Your task to perform on an android device: Show the shopping cart on newegg.com. Search for "razer thresher" on newegg.com, select the first entry, and add it to the cart. Image 0: 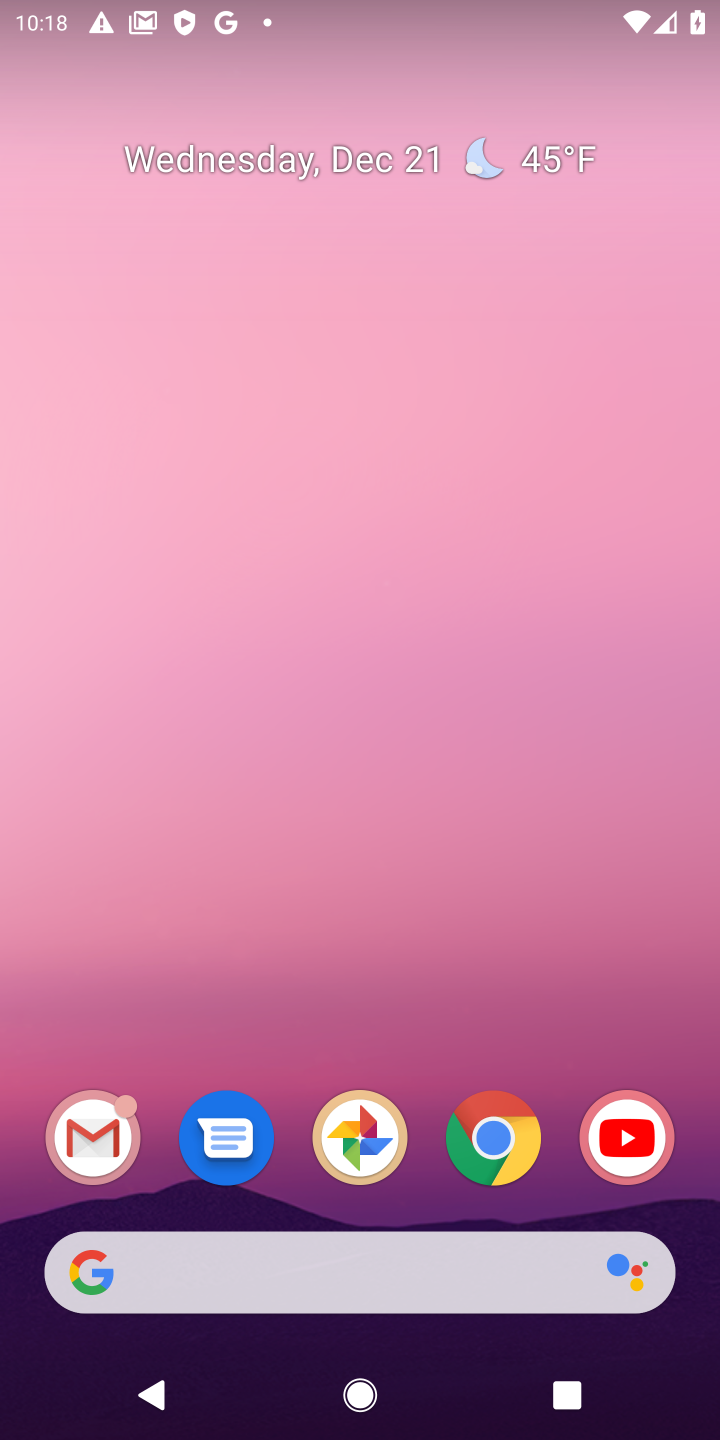
Step 0: click (485, 1154)
Your task to perform on an android device: Show the shopping cart on newegg.com. Search for "razer thresher" on newegg.com, select the first entry, and add it to the cart. Image 1: 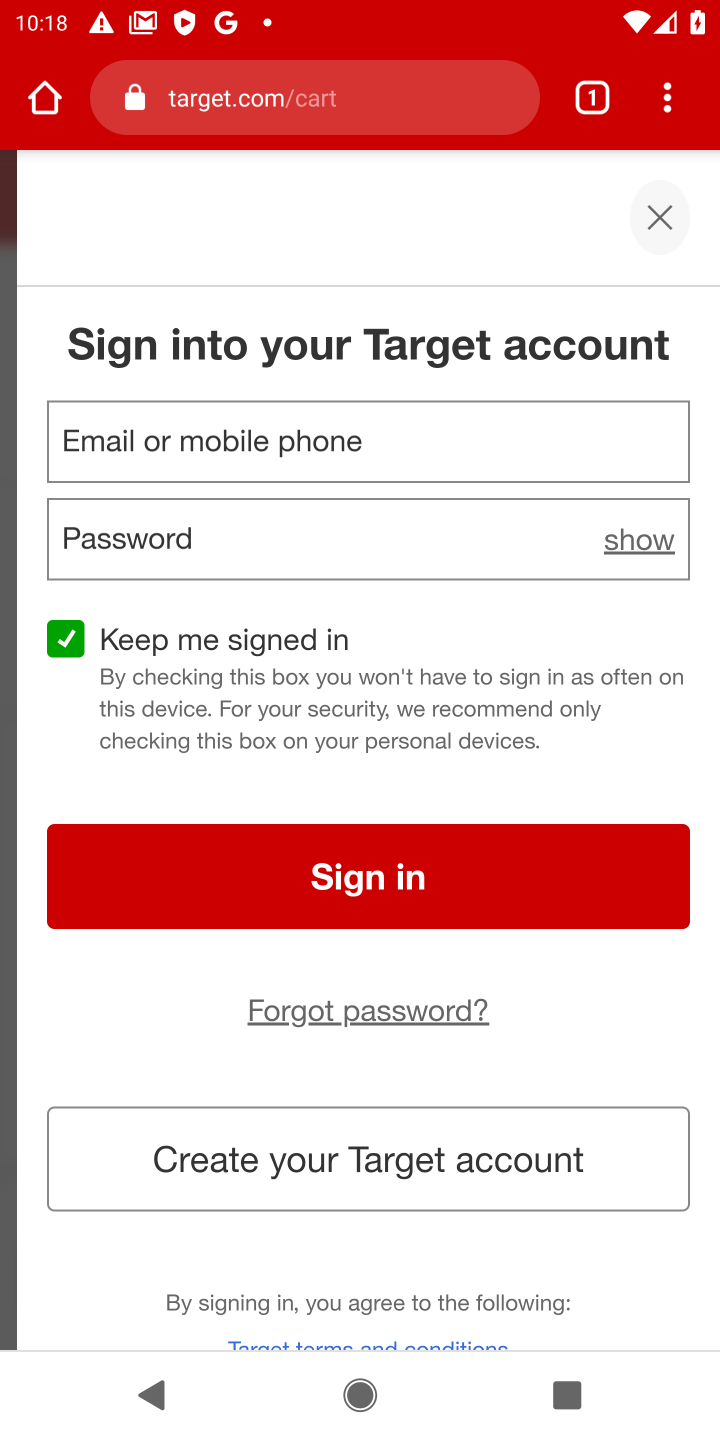
Step 1: click (241, 96)
Your task to perform on an android device: Show the shopping cart on newegg.com. Search for "razer thresher" on newegg.com, select the first entry, and add it to the cart. Image 2: 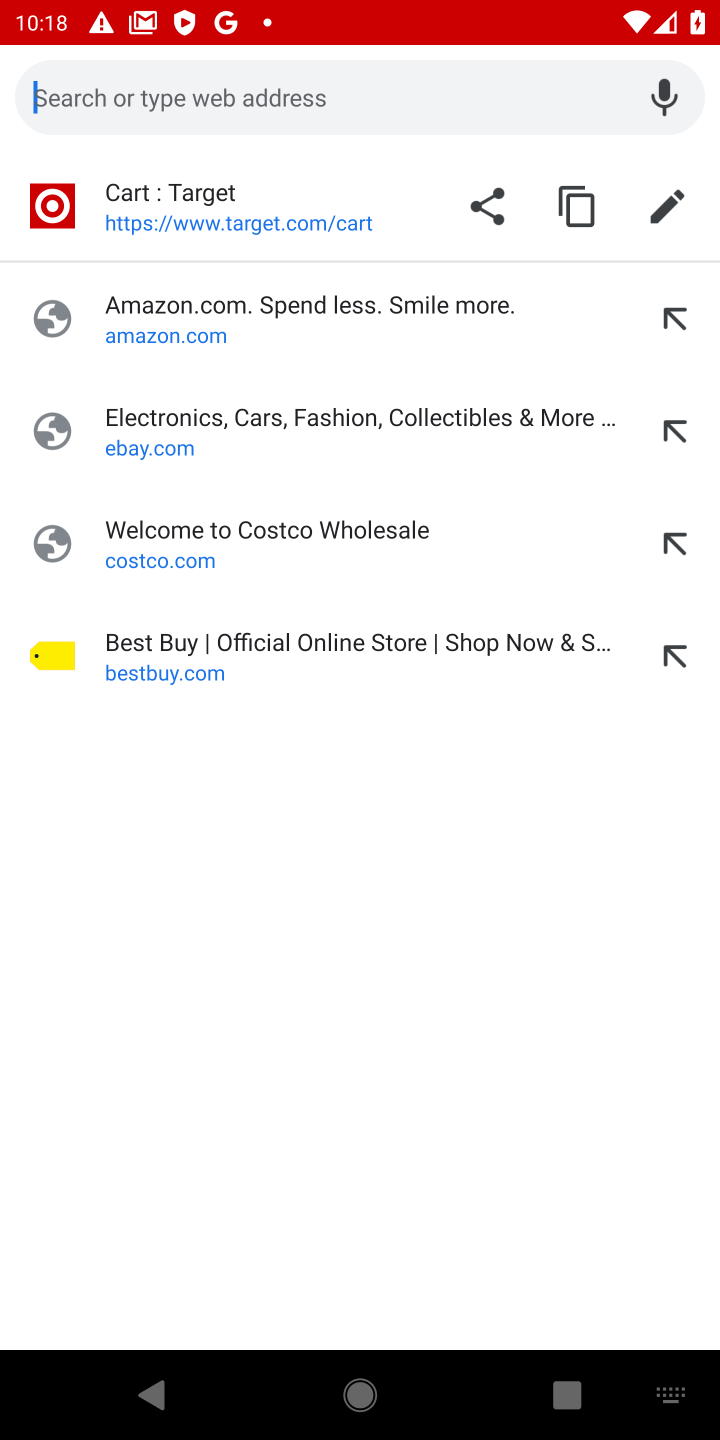
Step 2: type "newegg.com"
Your task to perform on an android device: Show the shopping cart on newegg.com. Search for "razer thresher" on newegg.com, select the first entry, and add it to the cart. Image 3: 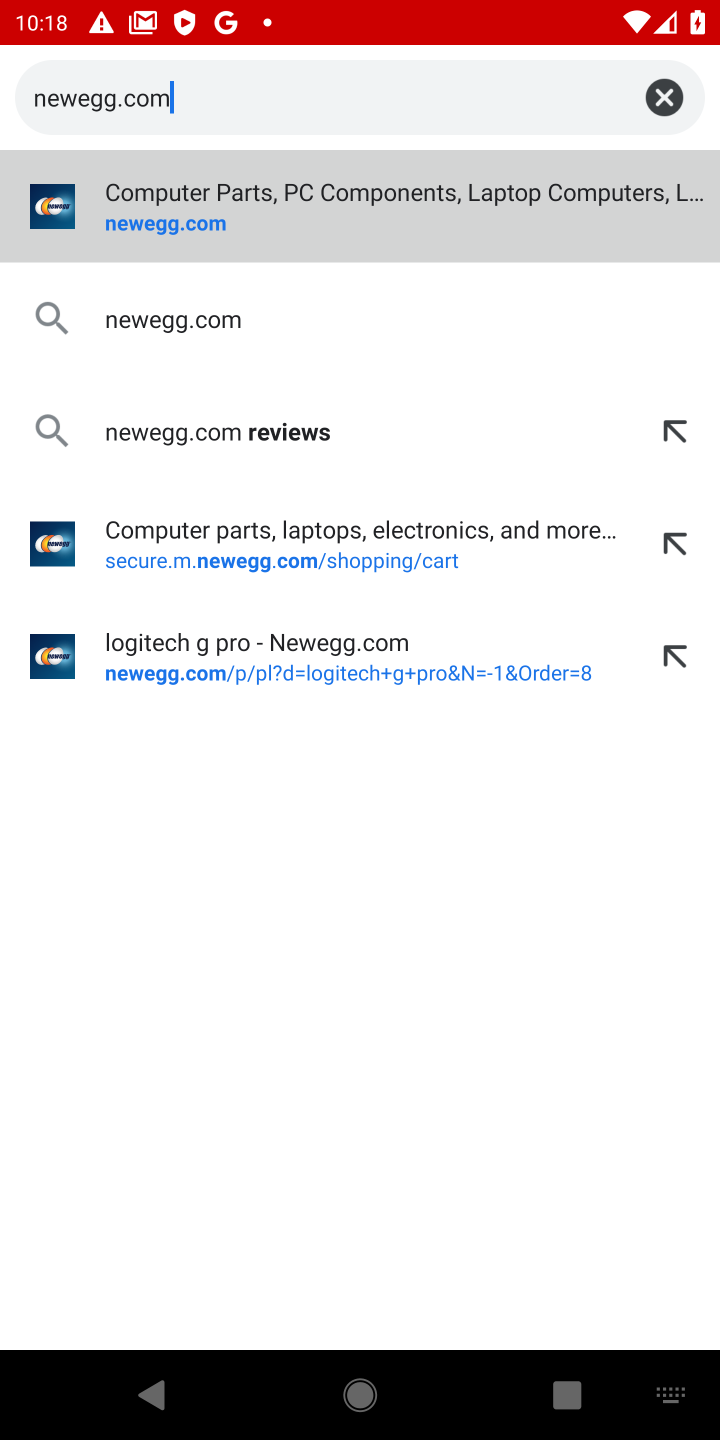
Step 3: click (142, 227)
Your task to perform on an android device: Show the shopping cart on newegg.com. Search for "razer thresher" on newegg.com, select the first entry, and add it to the cart. Image 4: 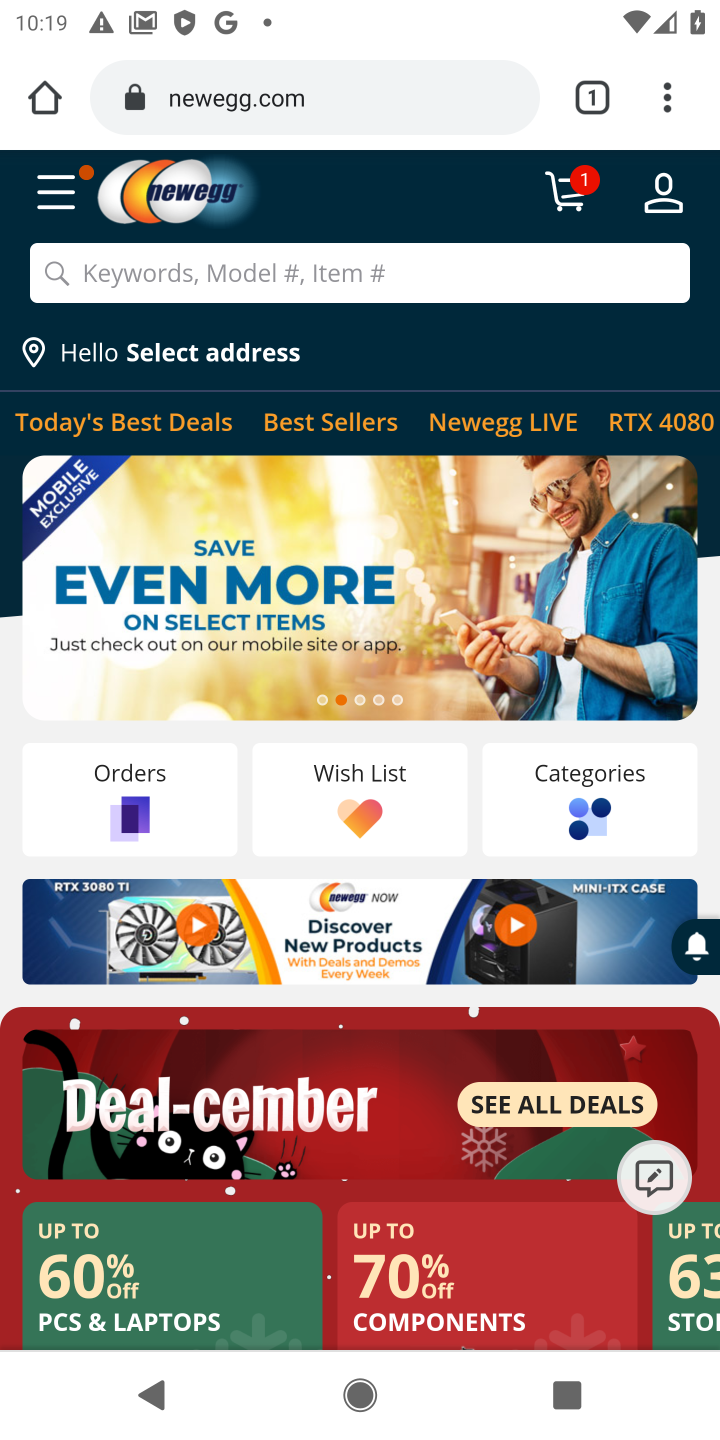
Step 4: click (565, 199)
Your task to perform on an android device: Show the shopping cart on newegg.com. Search for "razer thresher" on newegg.com, select the first entry, and add it to the cart. Image 5: 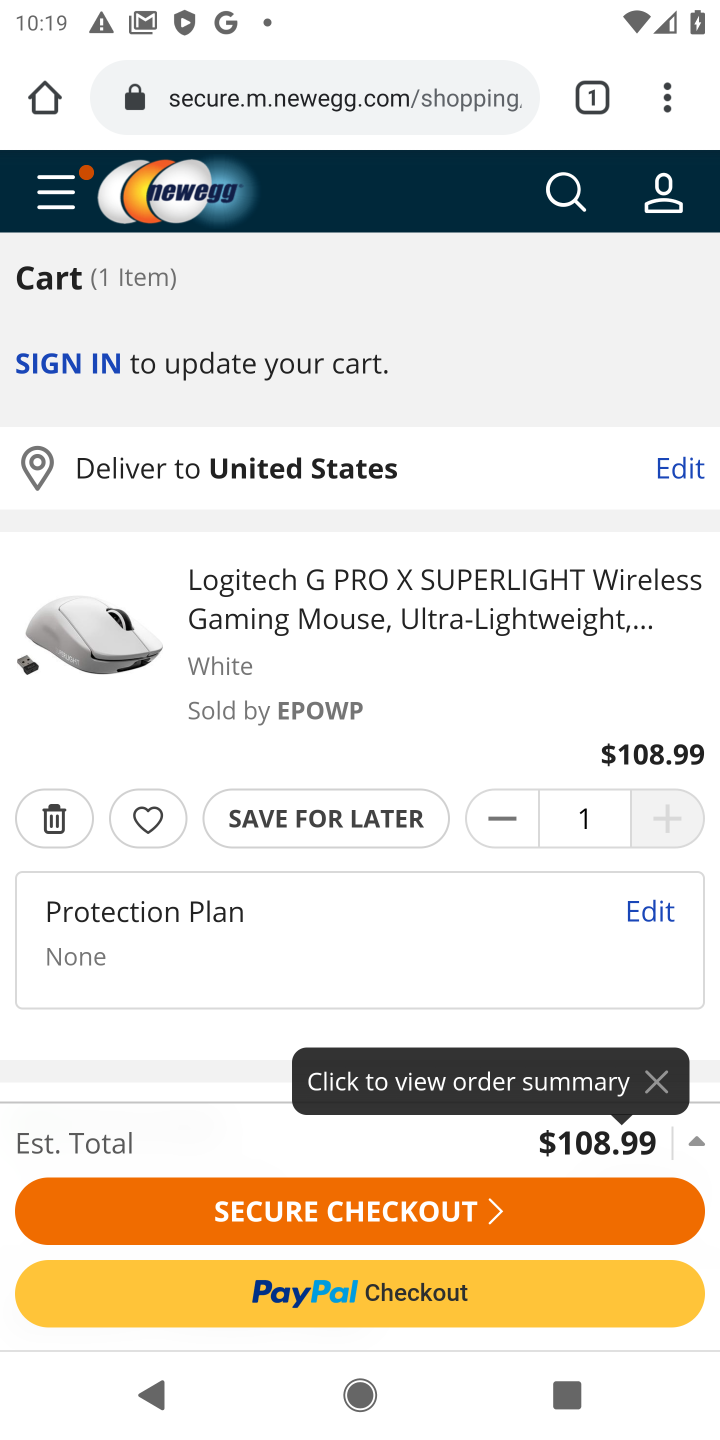
Step 5: click (563, 194)
Your task to perform on an android device: Show the shopping cart on newegg.com. Search for "razer thresher" on newegg.com, select the first entry, and add it to the cart. Image 6: 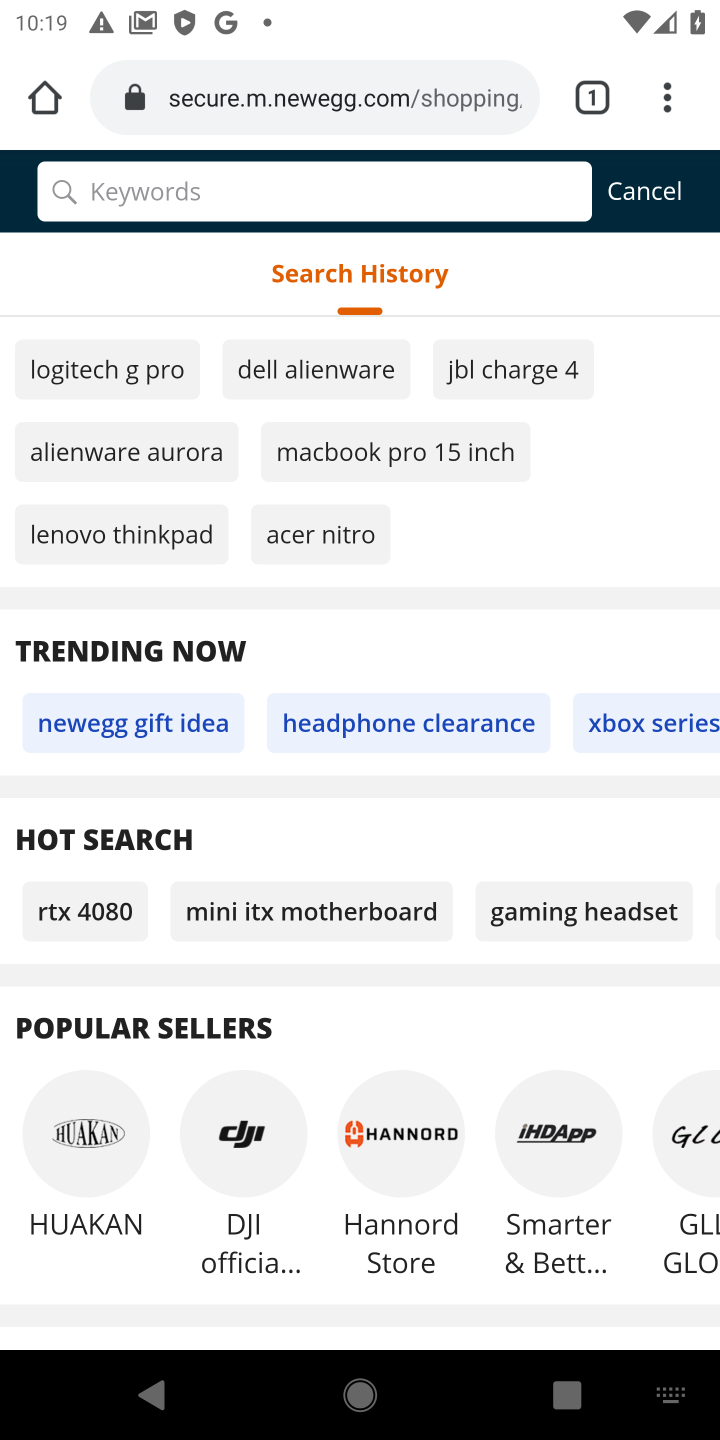
Step 6: type "razer thresher"
Your task to perform on an android device: Show the shopping cart on newegg.com. Search for "razer thresher" on newegg.com, select the first entry, and add it to the cart. Image 7: 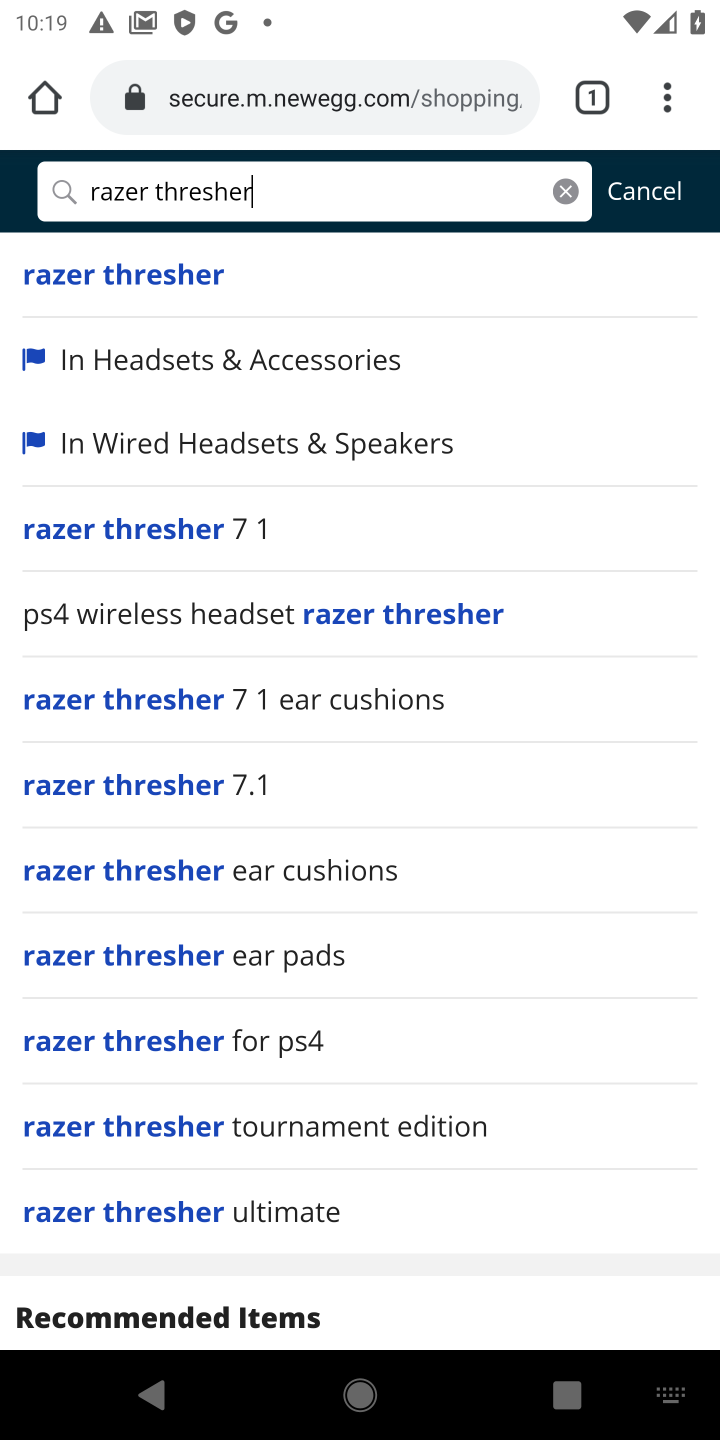
Step 7: click (157, 287)
Your task to perform on an android device: Show the shopping cart on newegg.com. Search for "razer thresher" on newegg.com, select the first entry, and add it to the cart. Image 8: 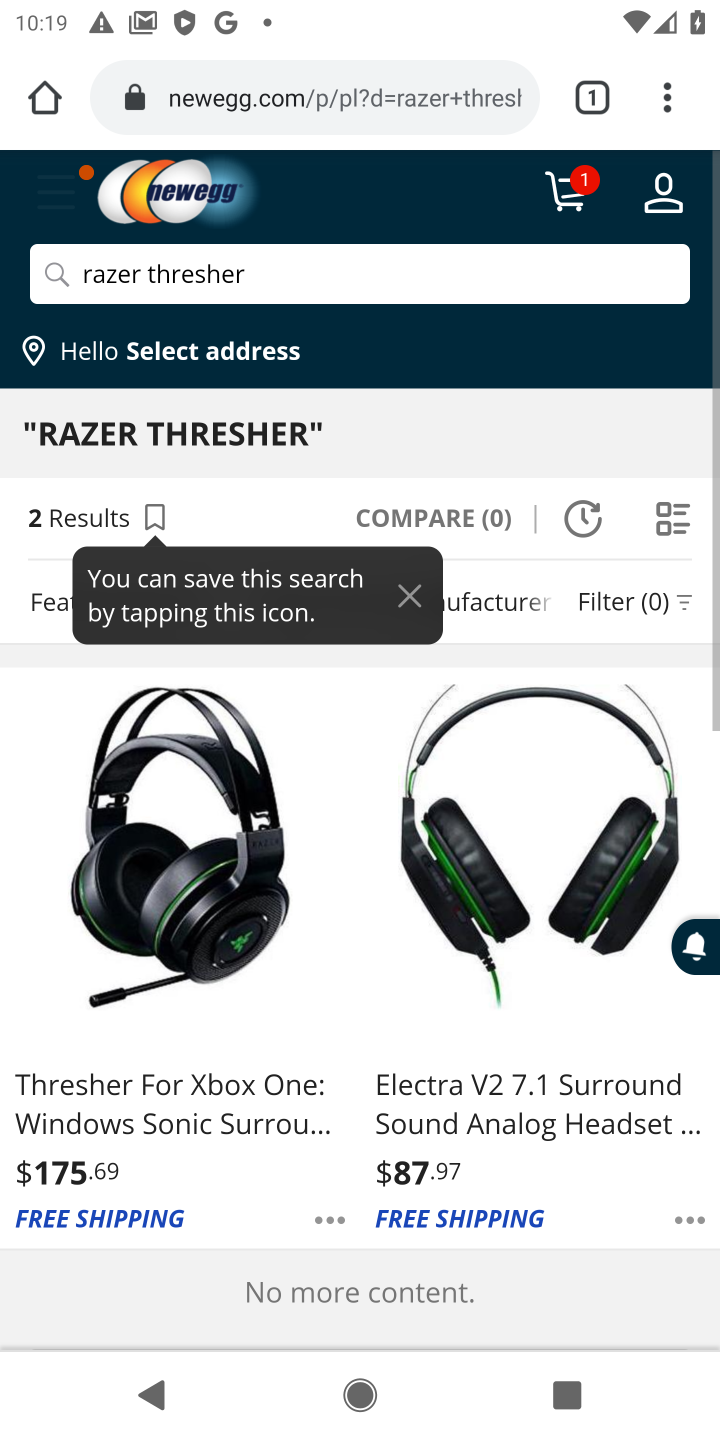
Step 8: drag from (317, 1125) to (344, 669)
Your task to perform on an android device: Show the shopping cart on newegg.com. Search for "razer thresher" on newegg.com, select the first entry, and add it to the cart. Image 9: 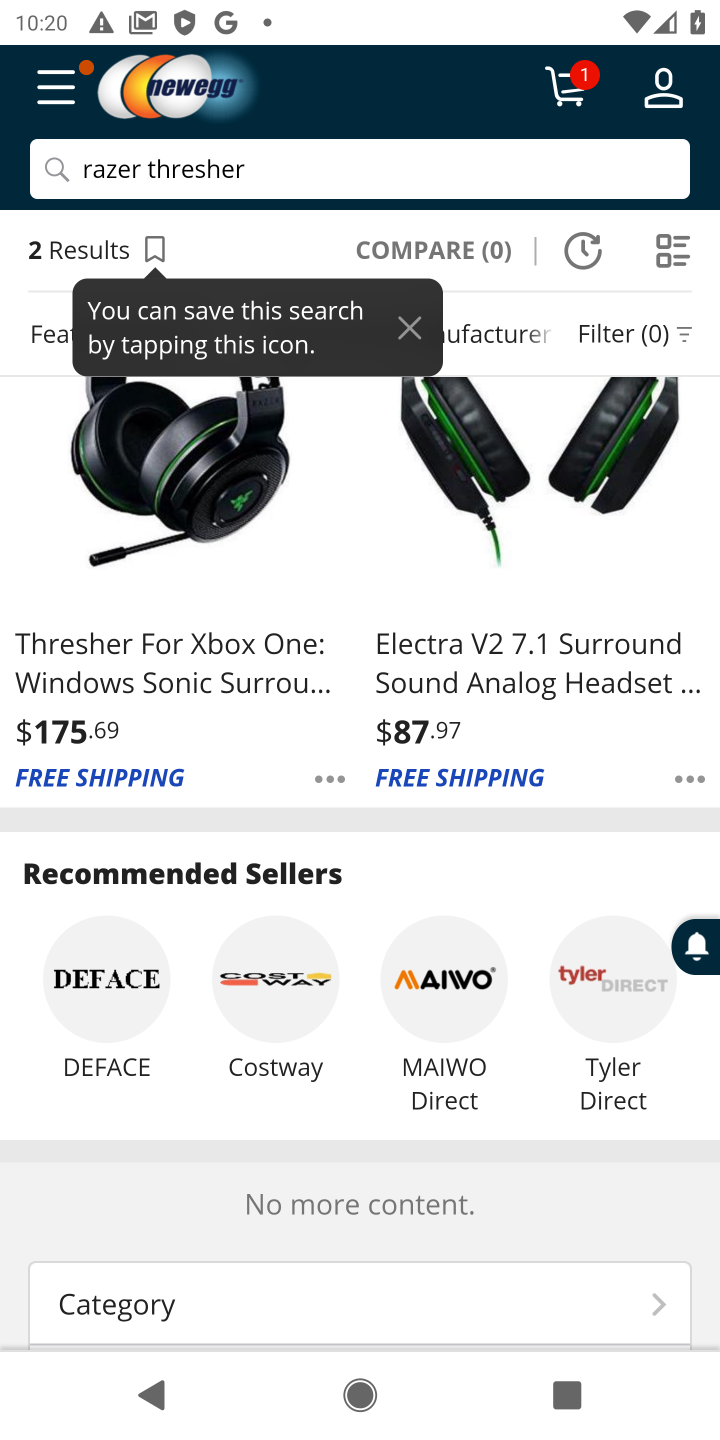
Step 9: click (100, 677)
Your task to perform on an android device: Show the shopping cart on newegg.com. Search for "razer thresher" on newegg.com, select the first entry, and add it to the cart. Image 10: 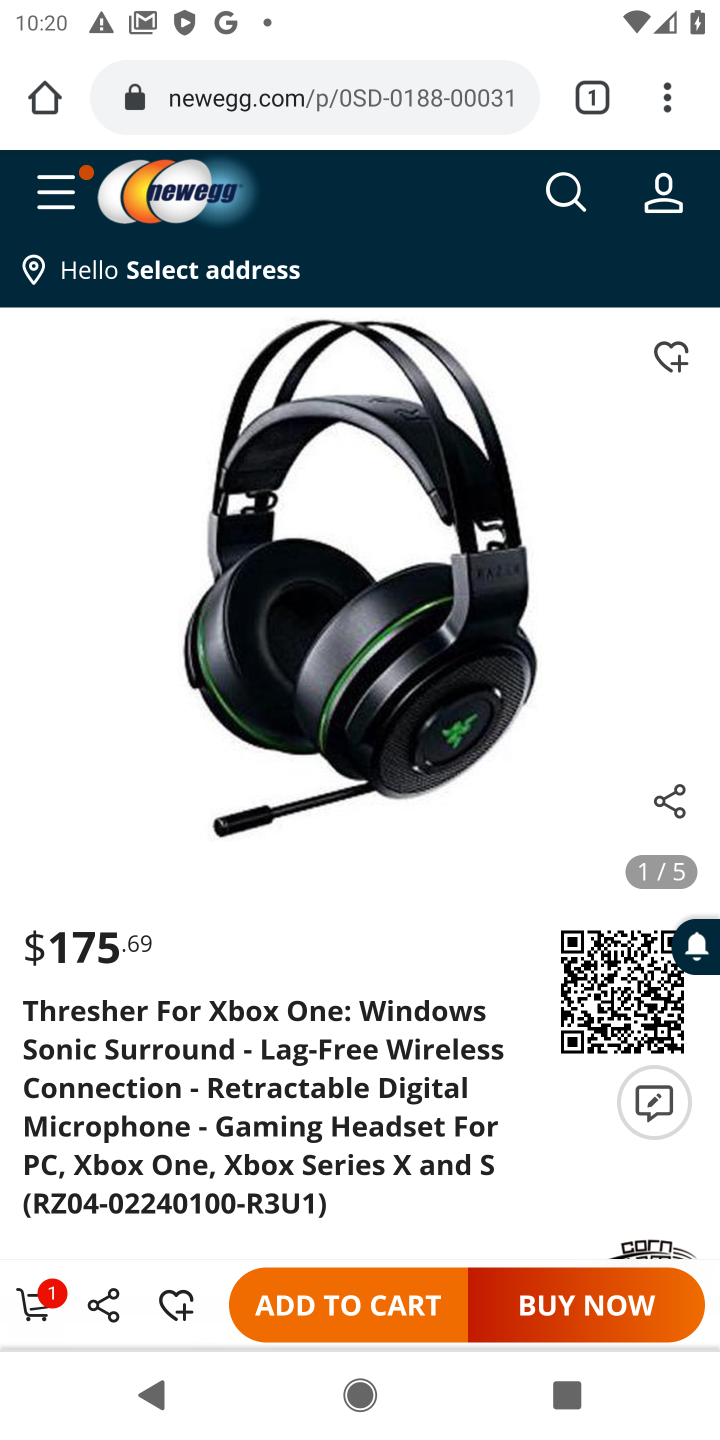
Step 10: click (342, 1311)
Your task to perform on an android device: Show the shopping cart on newegg.com. Search for "razer thresher" on newegg.com, select the first entry, and add it to the cart. Image 11: 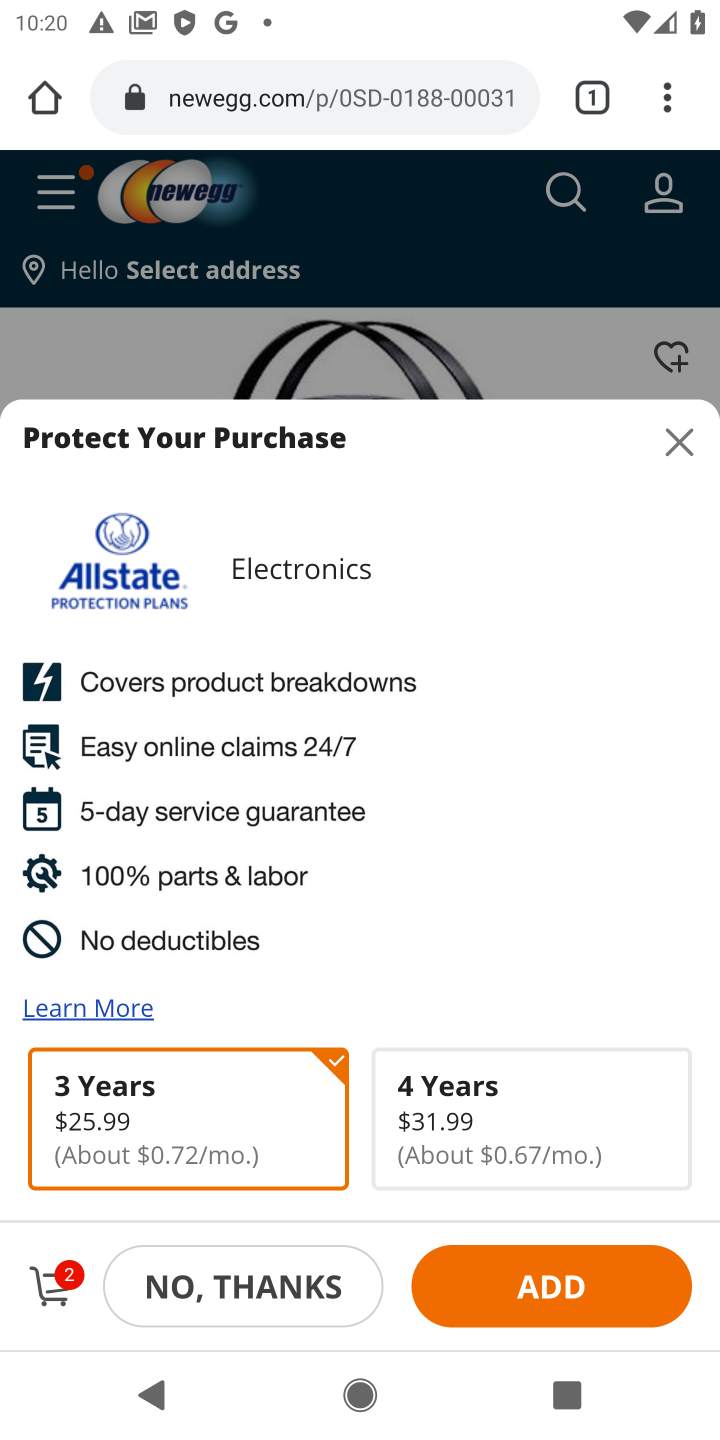
Step 11: task complete